Your task to perform on an android device: allow cookies in the chrome app Image 0: 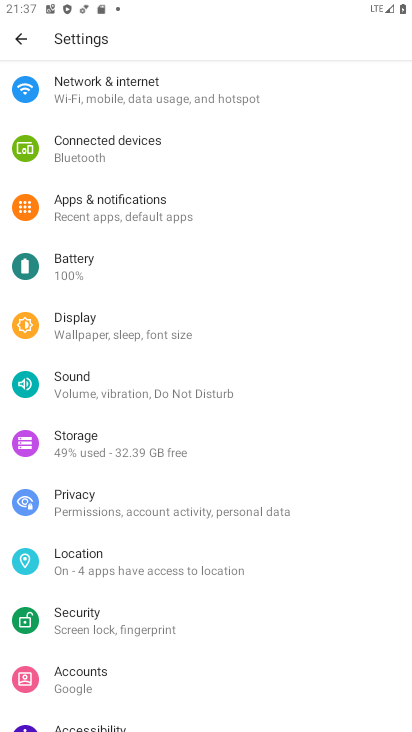
Step 0: press back button
Your task to perform on an android device: allow cookies in the chrome app Image 1: 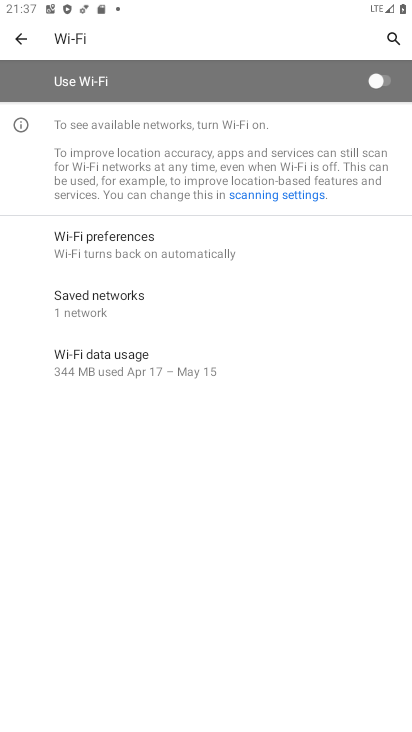
Step 1: press back button
Your task to perform on an android device: allow cookies in the chrome app Image 2: 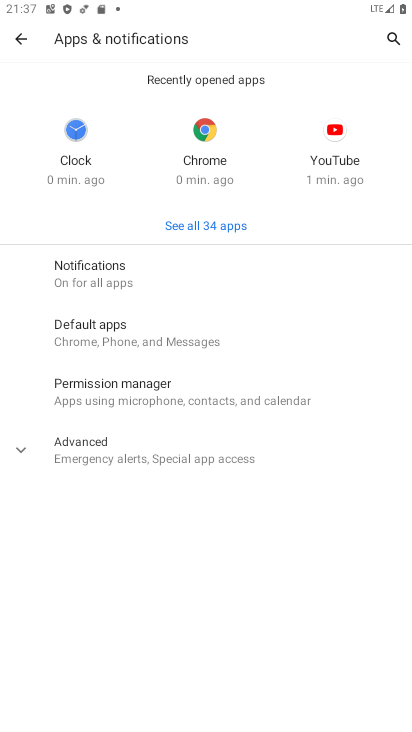
Step 2: press back button
Your task to perform on an android device: allow cookies in the chrome app Image 3: 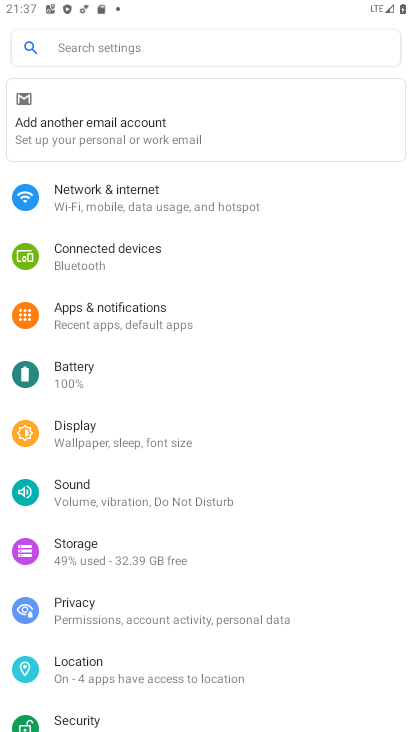
Step 3: press back button
Your task to perform on an android device: allow cookies in the chrome app Image 4: 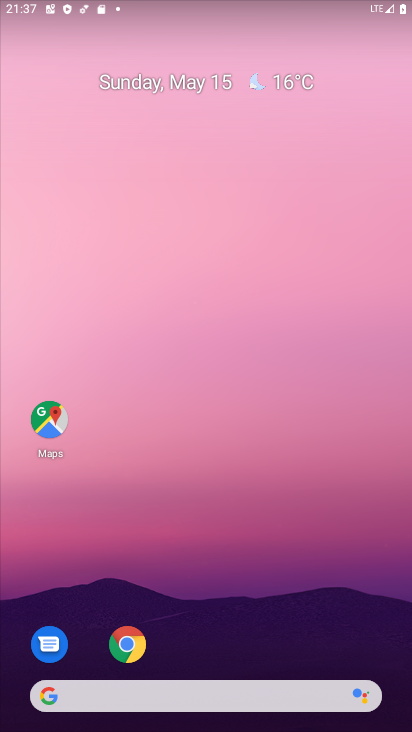
Step 4: click (126, 648)
Your task to perform on an android device: allow cookies in the chrome app Image 5: 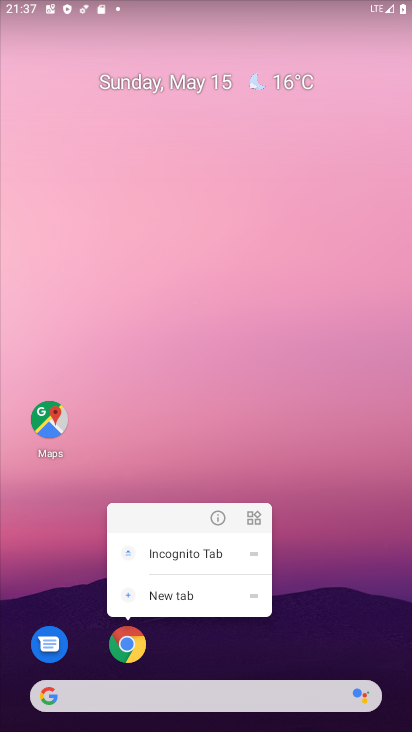
Step 5: click (132, 644)
Your task to perform on an android device: allow cookies in the chrome app Image 6: 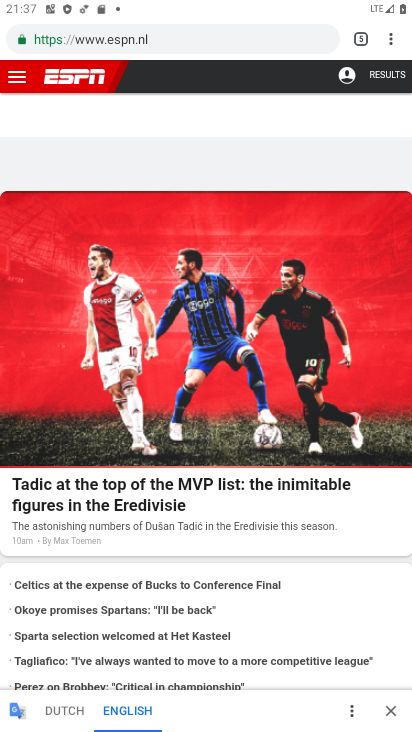
Step 6: drag from (390, 41) to (289, 431)
Your task to perform on an android device: allow cookies in the chrome app Image 7: 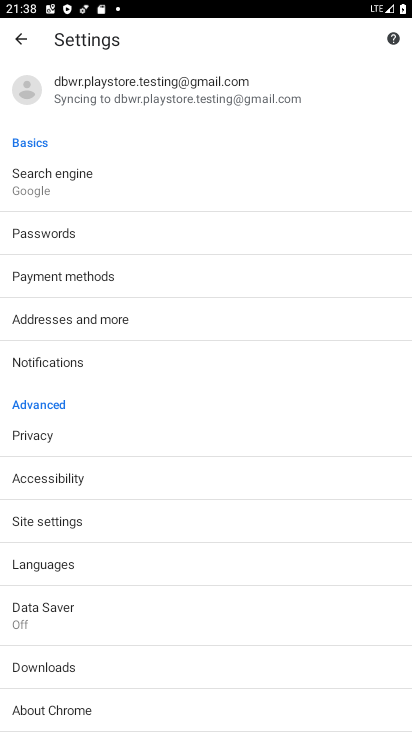
Step 7: click (75, 534)
Your task to perform on an android device: allow cookies in the chrome app Image 8: 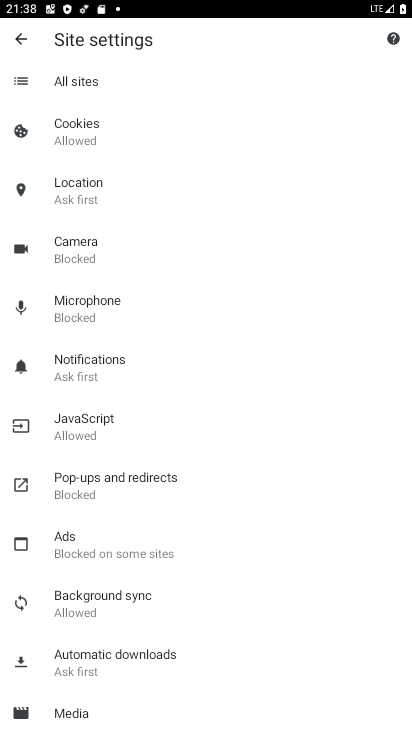
Step 8: click (103, 125)
Your task to perform on an android device: allow cookies in the chrome app Image 9: 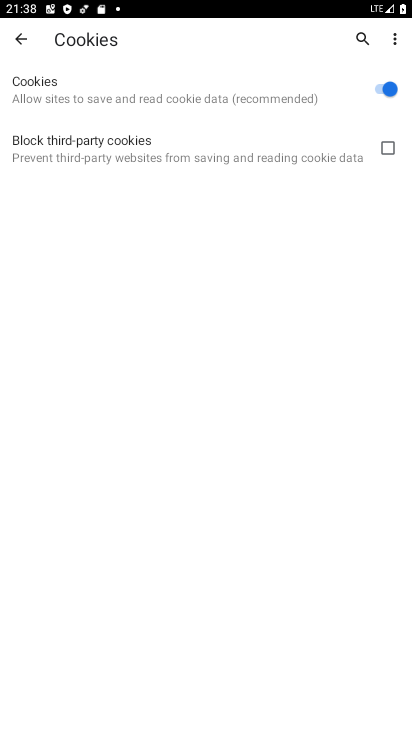
Step 9: click (385, 91)
Your task to perform on an android device: allow cookies in the chrome app Image 10: 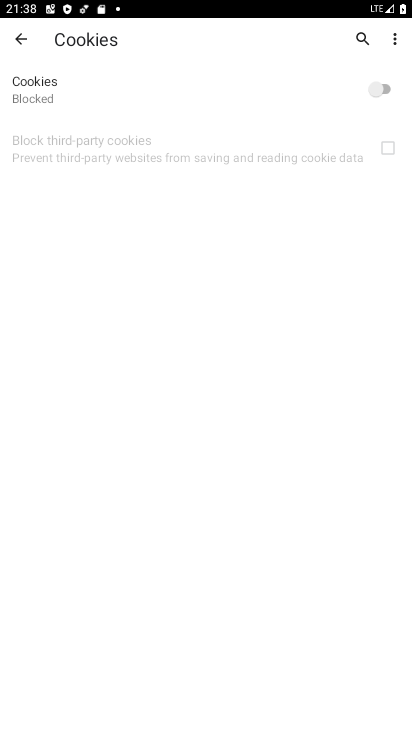
Step 10: click (388, 88)
Your task to perform on an android device: allow cookies in the chrome app Image 11: 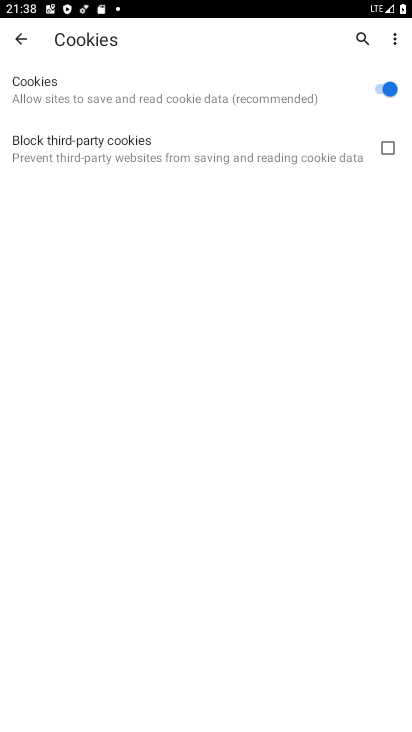
Step 11: task complete